Your task to perform on an android device: View the shopping cart on amazon. Image 0: 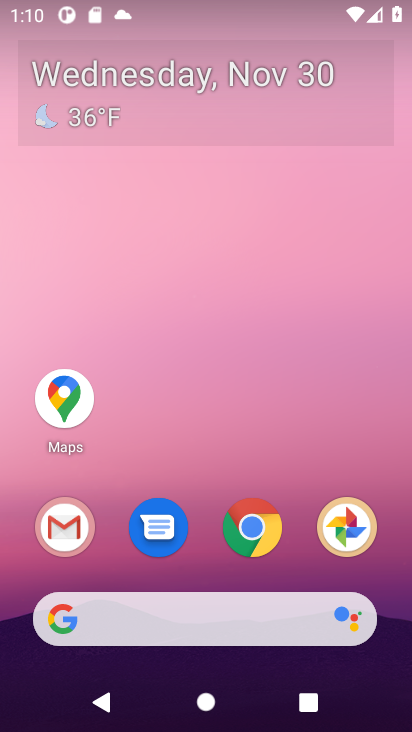
Step 0: press home button
Your task to perform on an android device: View the shopping cart on amazon. Image 1: 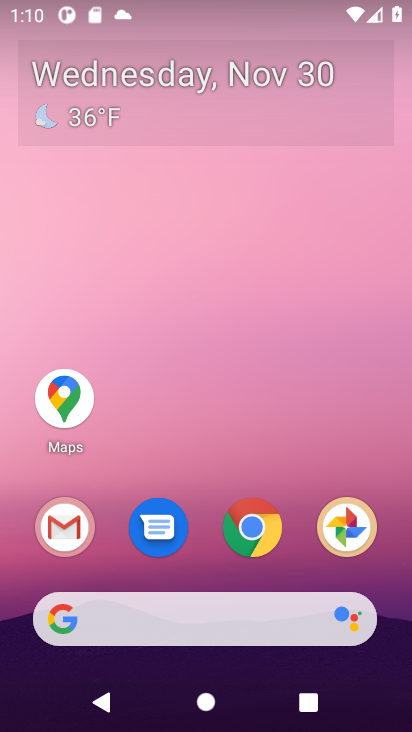
Step 1: click (260, 551)
Your task to perform on an android device: View the shopping cart on amazon. Image 2: 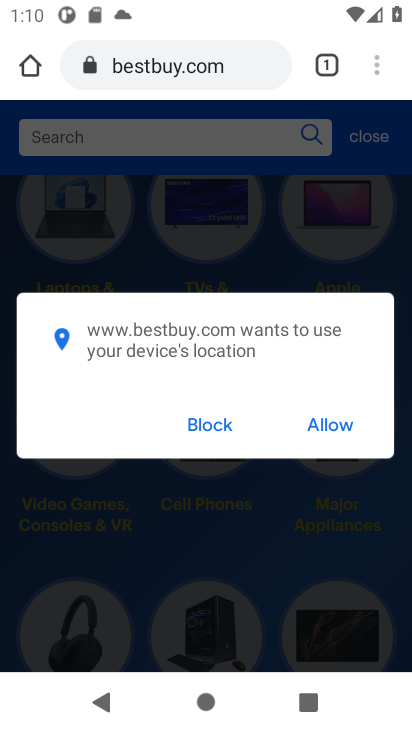
Step 2: click (211, 441)
Your task to perform on an android device: View the shopping cart on amazon. Image 3: 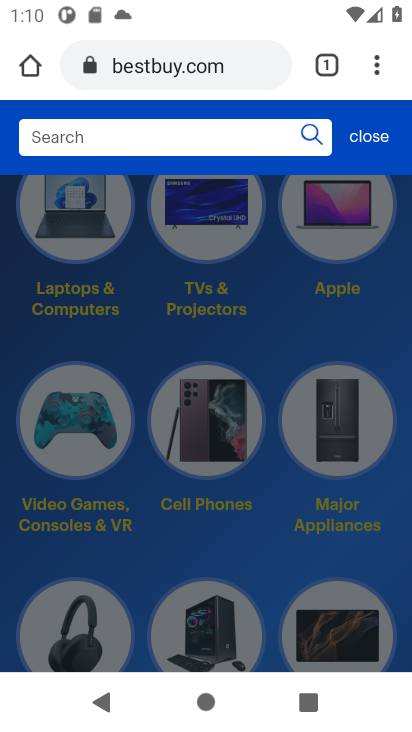
Step 3: click (237, 71)
Your task to perform on an android device: View the shopping cart on amazon. Image 4: 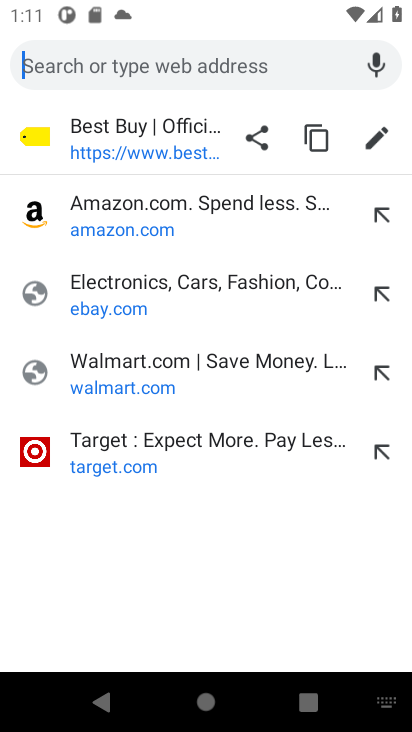
Step 4: click (201, 207)
Your task to perform on an android device: View the shopping cart on amazon. Image 5: 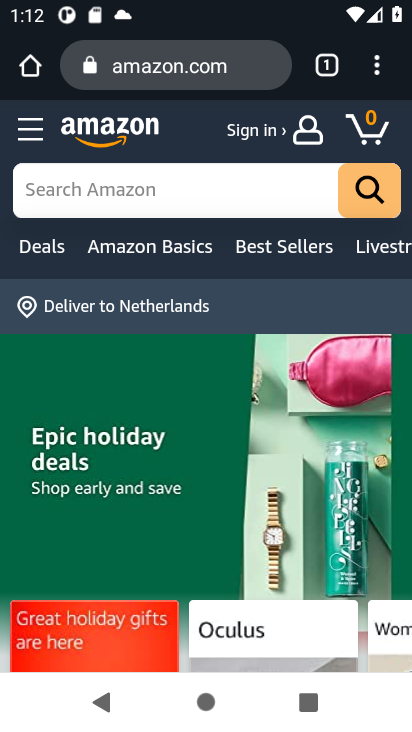
Step 5: click (166, 179)
Your task to perform on an android device: View the shopping cart on amazon. Image 6: 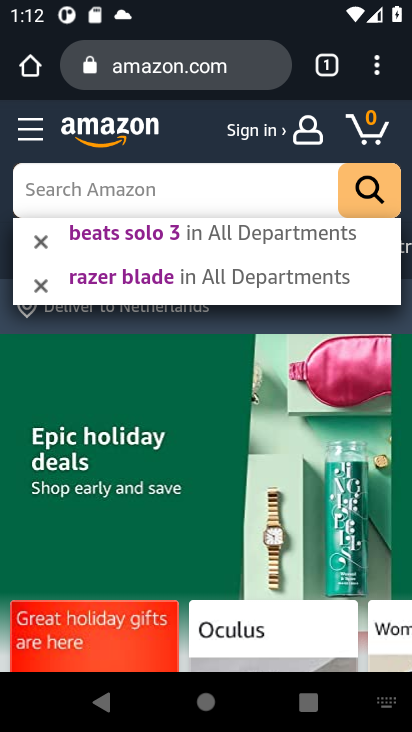
Step 6: click (356, 117)
Your task to perform on an android device: View the shopping cart on amazon. Image 7: 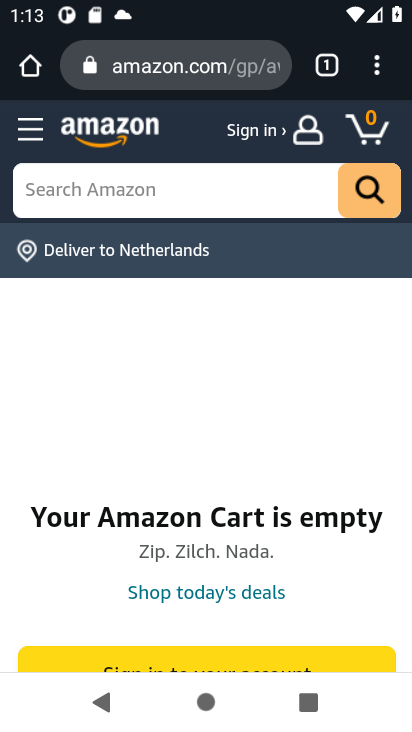
Step 7: task complete